Your task to perform on an android device: open app "TextNow: Call + Text Unlimited" (install if not already installed) Image 0: 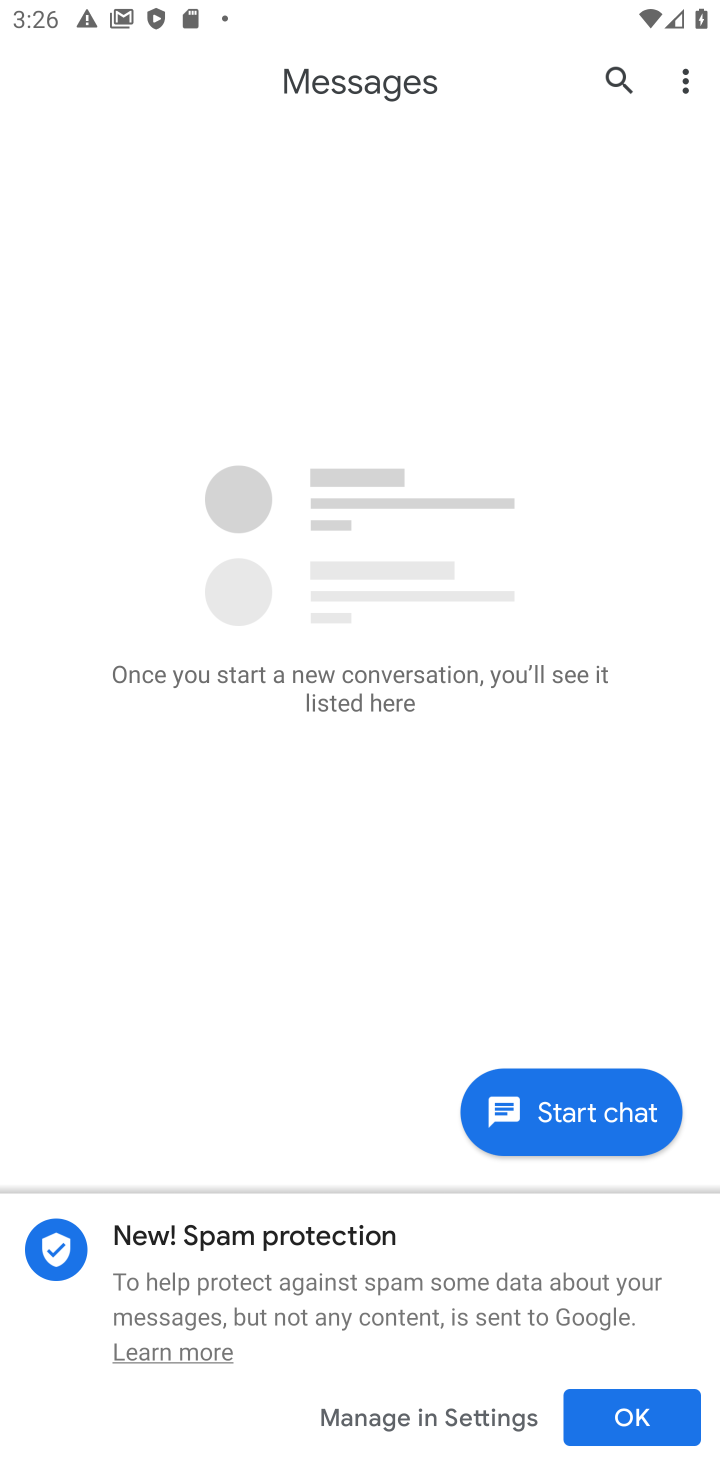
Step 0: press home button
Your task to perform on an android device: open app "TextNow: Call + Text Unlimited" (install if not already installed) Image 1: 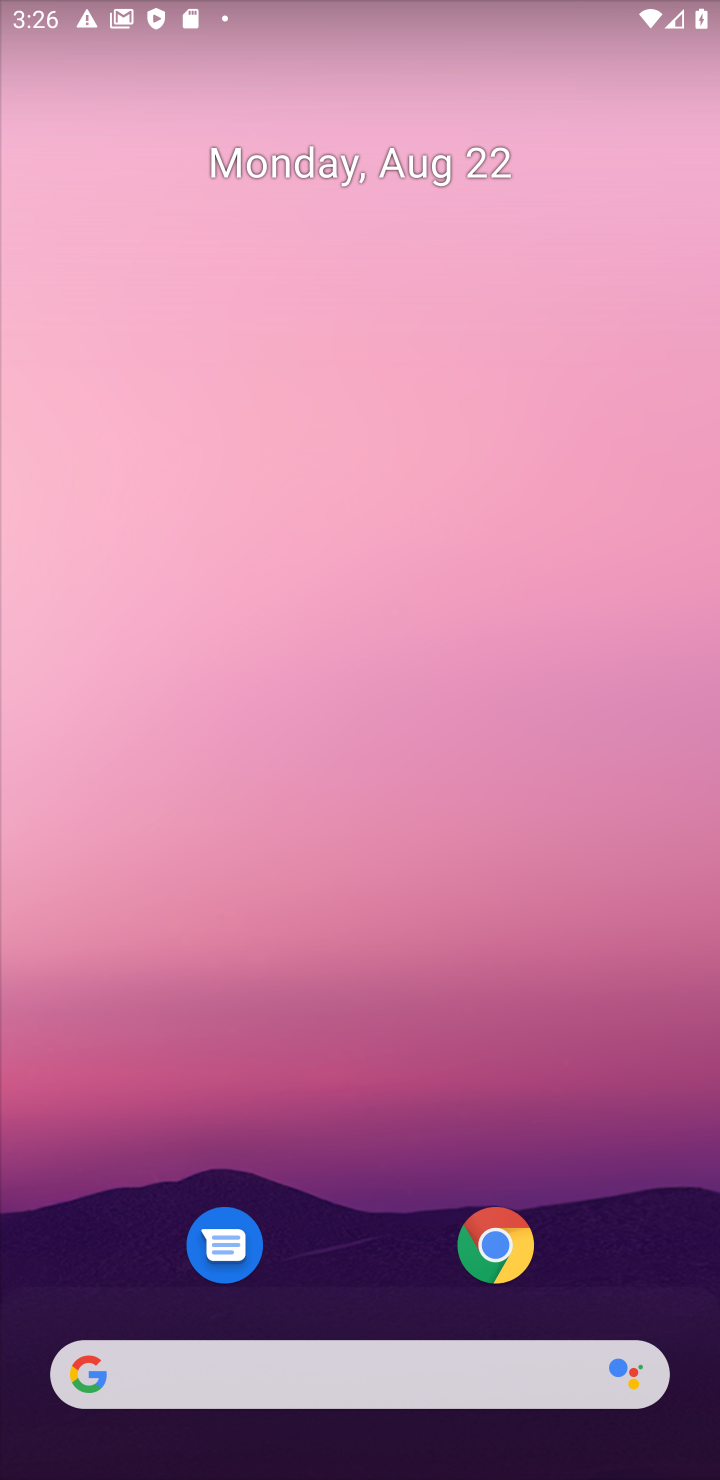
Step 1: drag from (635, 945) to (627, 250)
Your task to perform on an android device: open app "TextNow: Call + Text Unlimited" (install if not already installed) Image 2: 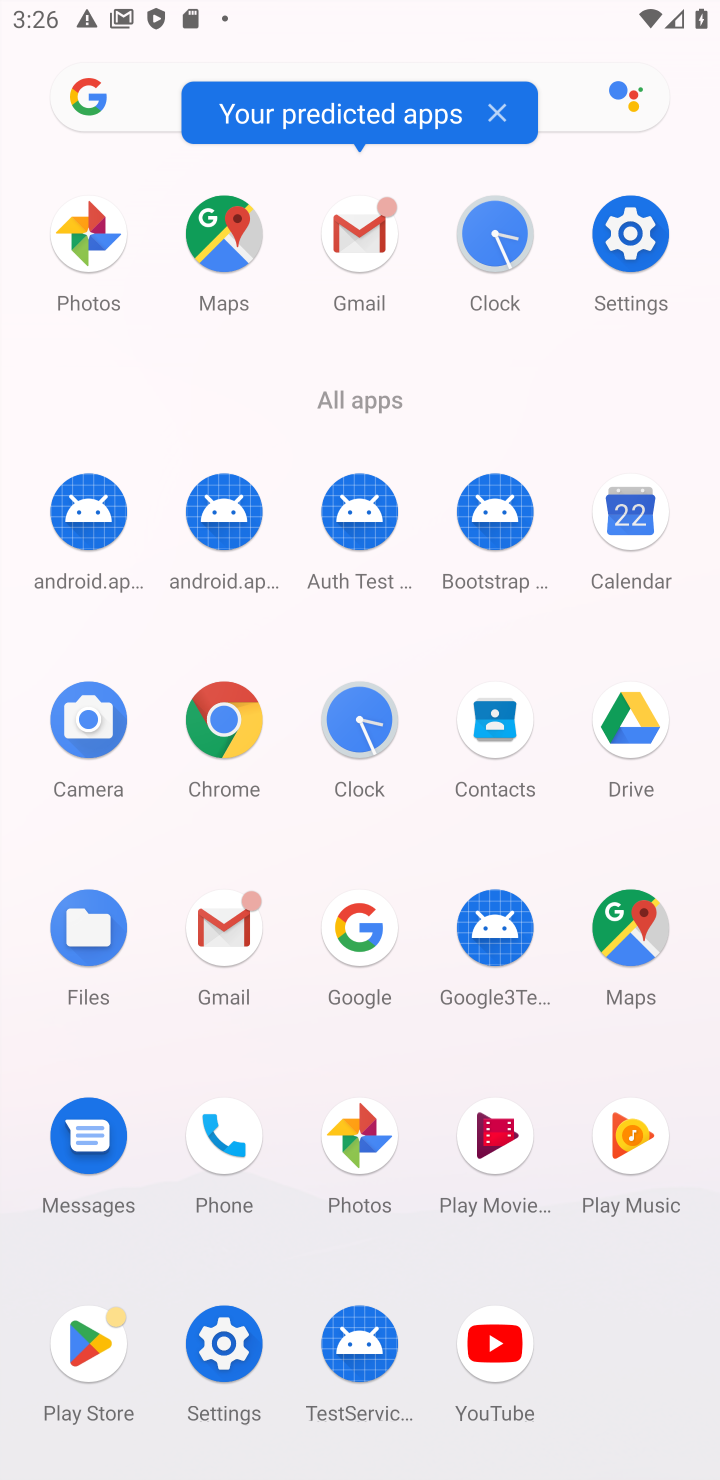
Step 2: click (83, 1340)
Your task to perform on an android device: open app "TextNow: Call + Text Unlimited" (install if not already installed) Image 3: 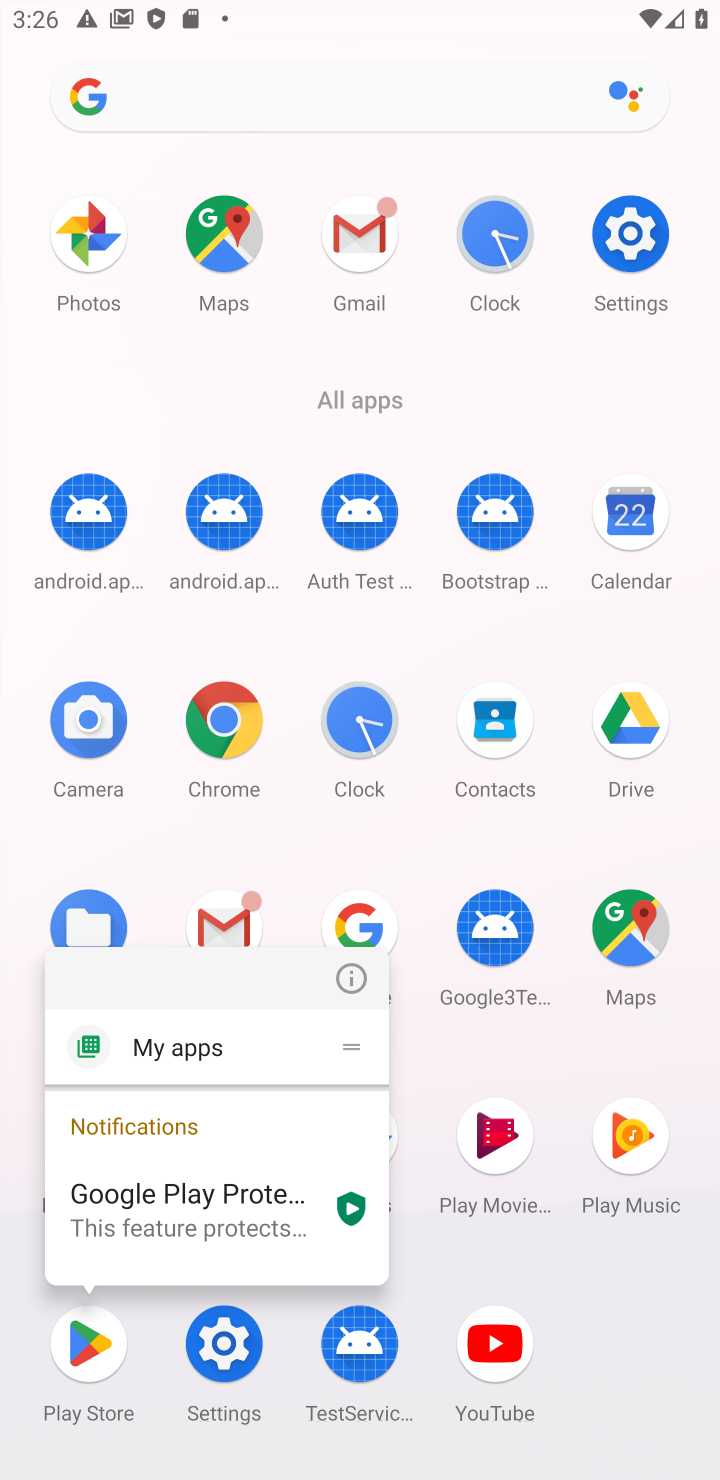
Step 3: click (83, 1340)
Your task to perform on an android device: open app "TextNow: Call + Text Unlimited" (install if not already installed) Image 4: 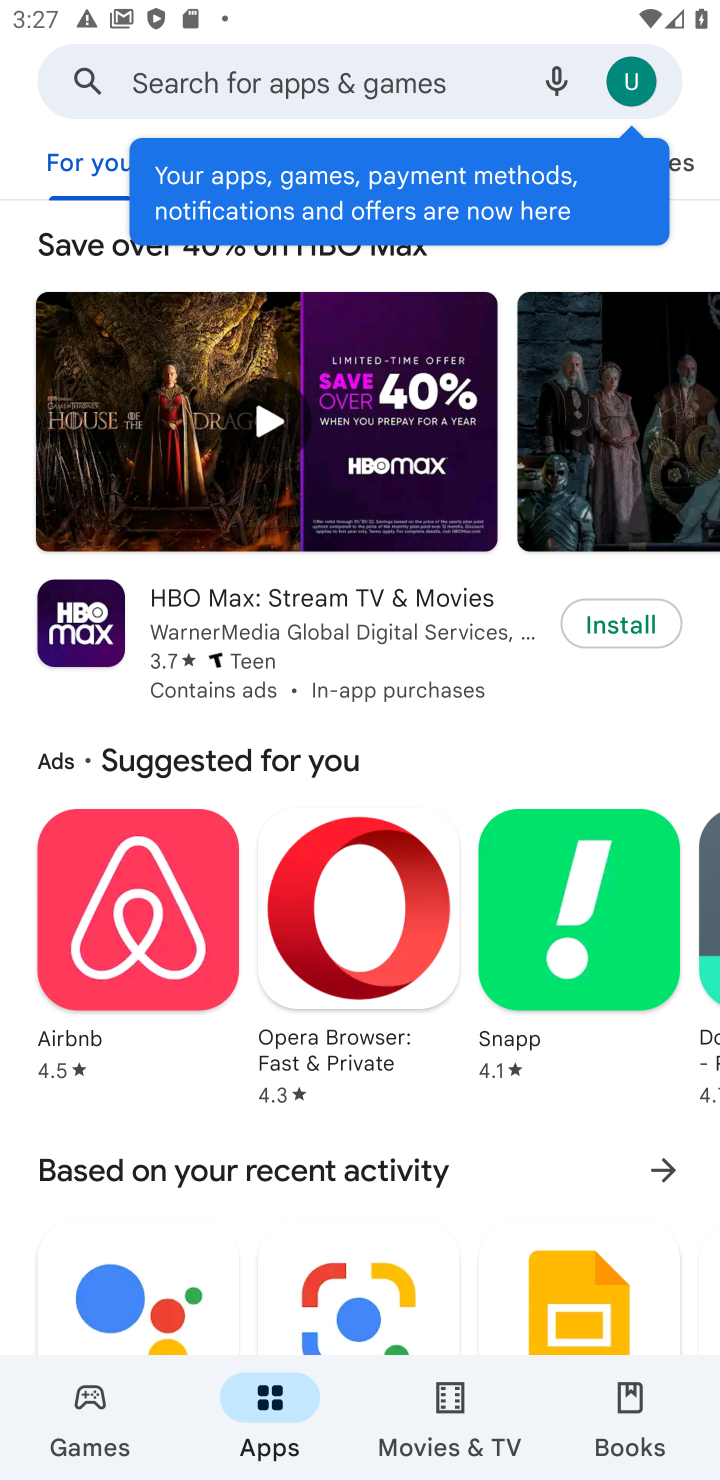
Step 4: click (394, 73)
Your task to perform on an android device: open app "TextNow: Call + Text Unlimited" (install if not already installed) Image 5: 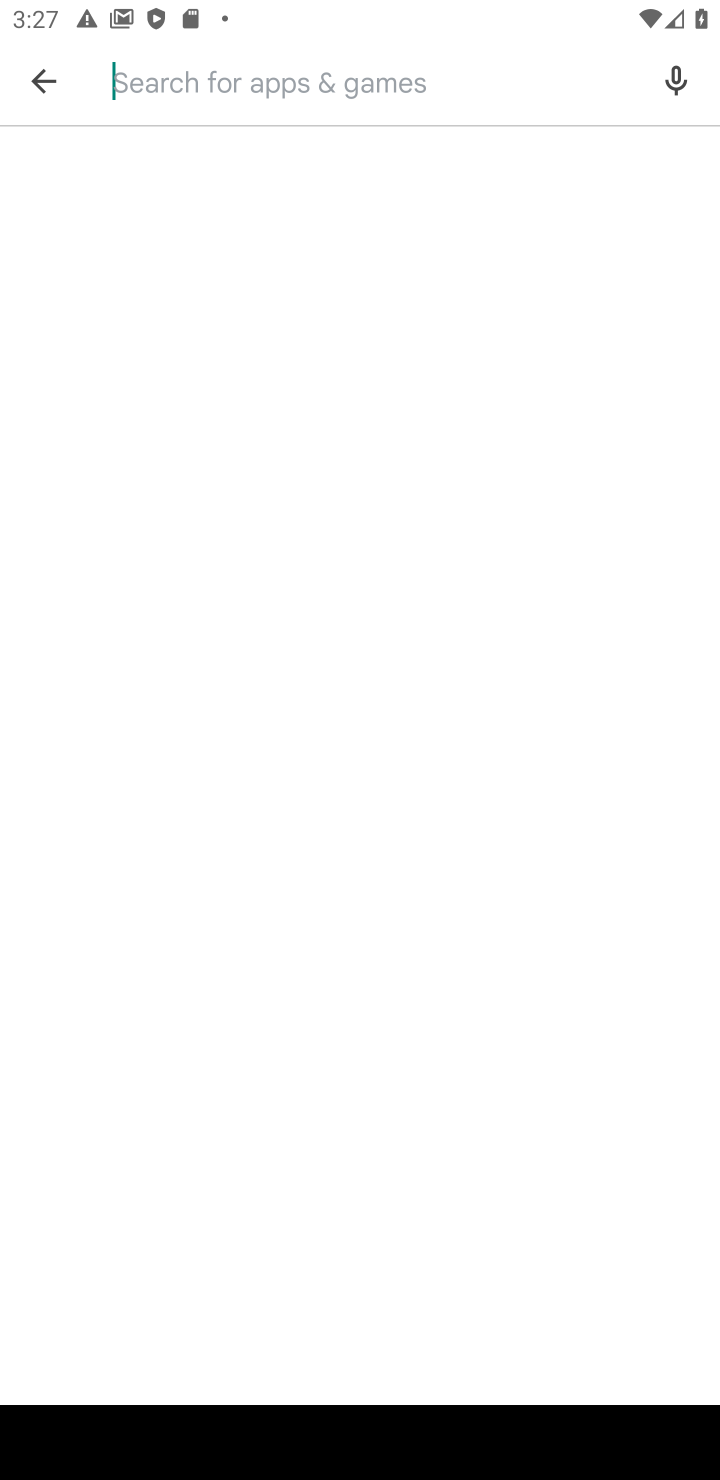
Step 5: press enter
Your task to perform on an android device: open app "TextNow: Call + Text Unlimited" (install if not already installed) Image 6: 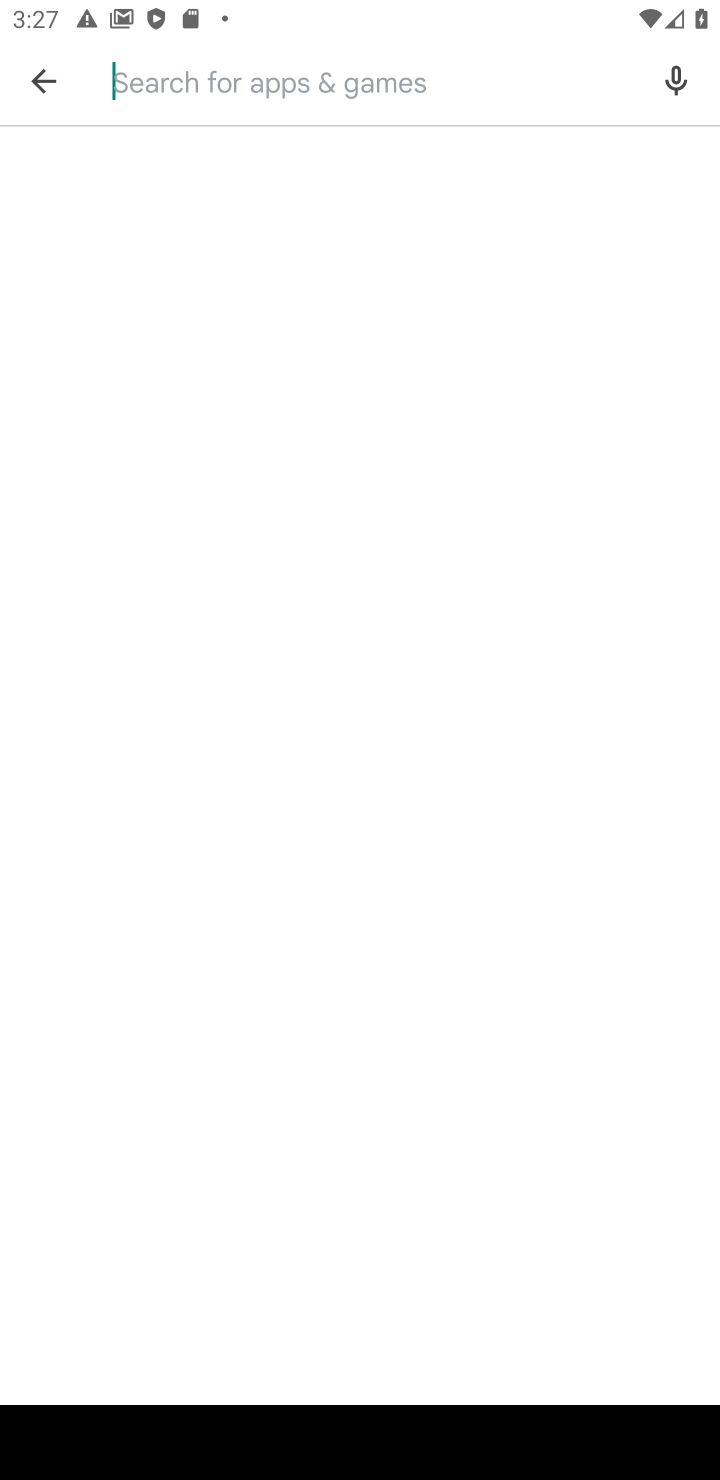
Step 6: type "TextNow: Call + Text Unlimited"
Your task to perform on an android device: open app "TextNow: Call + Text Unlimited" (install if not already installed) Image 7: 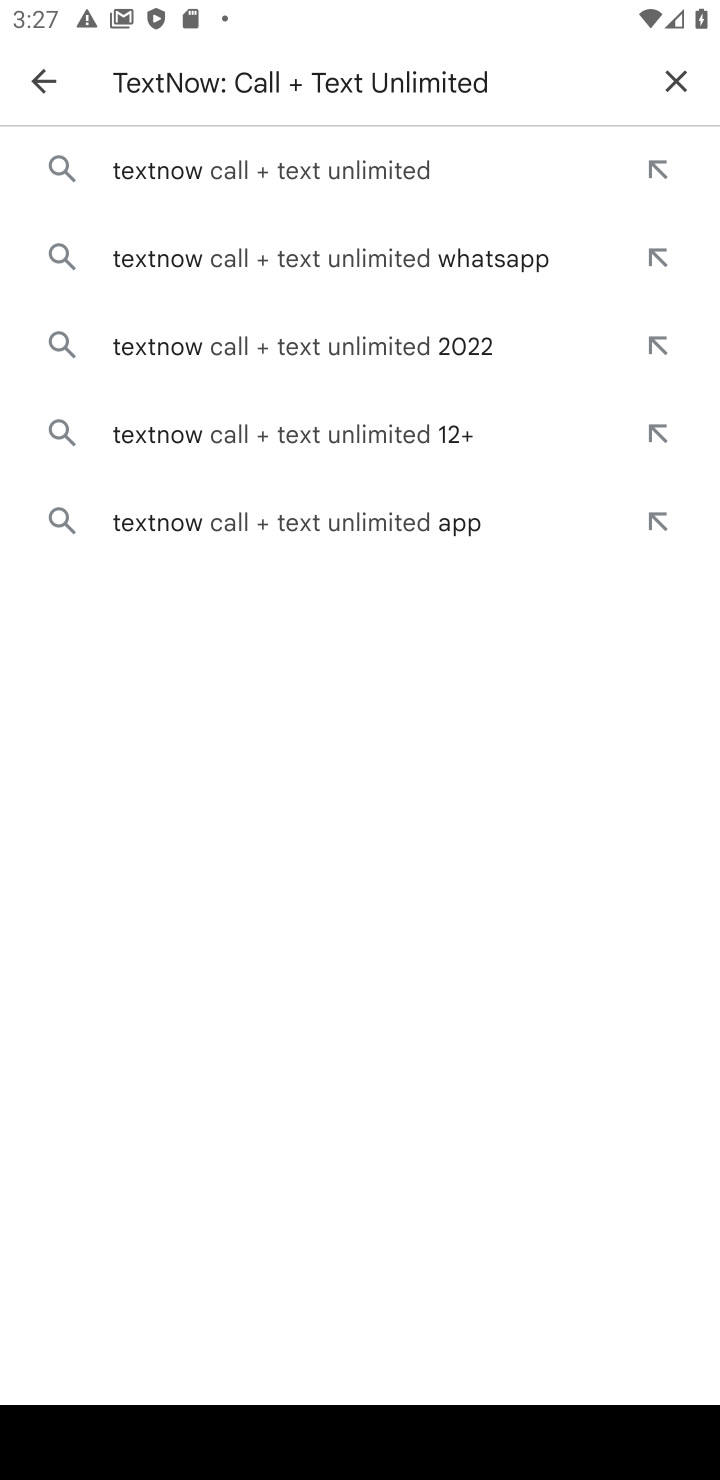
Step 7: click (375, 164)
Your task to perform on an android device: open app "TextNow: Call + Text Unlimited" (install if not already installed) Image 8: 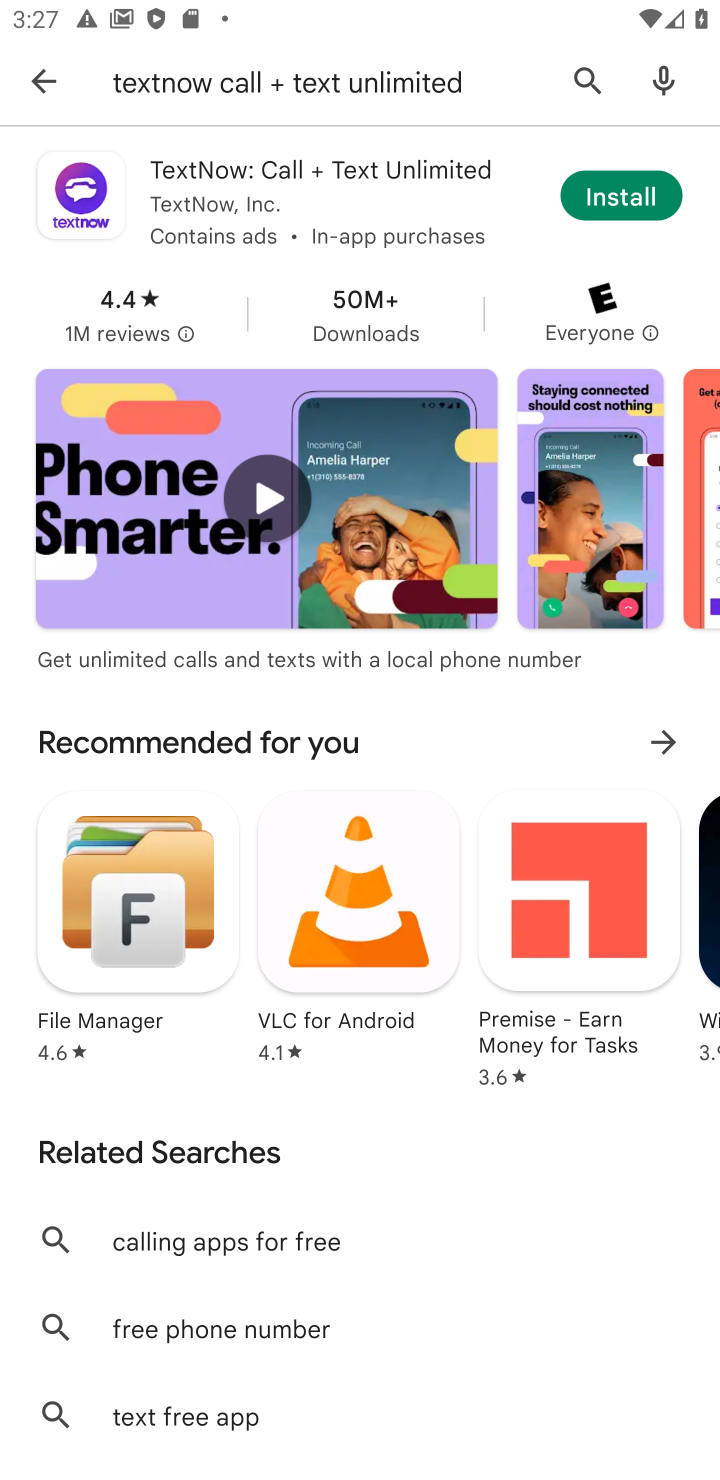
Step 8: click (628, 186)
Your task to perform on an android device: open app "TextNow: Call + Text Unlimited" (install if not already installed) Image 9: 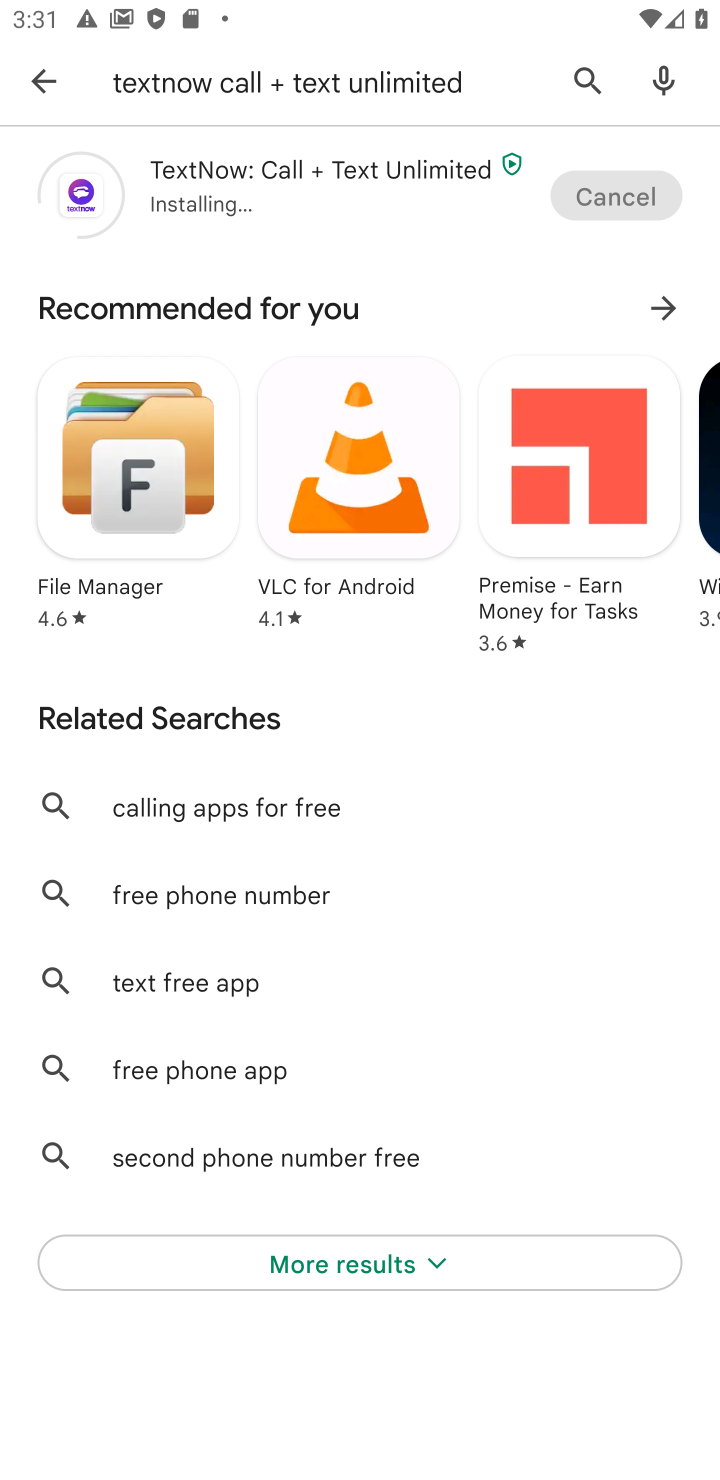
Step 9: task complete